Your task to perform on an android device: Open internet settings Image 0: 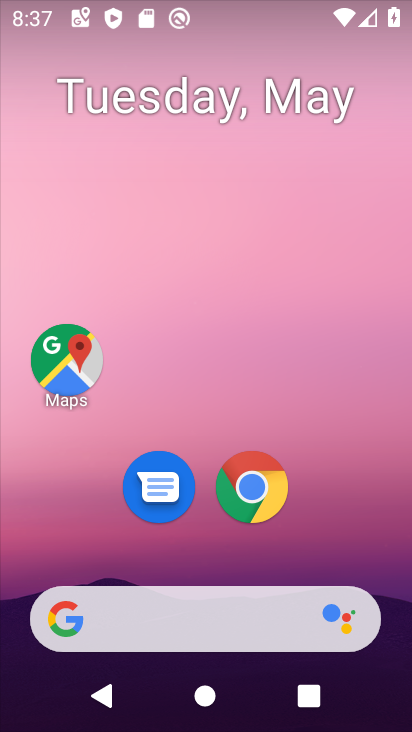
Step 0: drag from (353, 532) to (359, 127)
Your task to perform on an android device: Open internet settings Image 1: 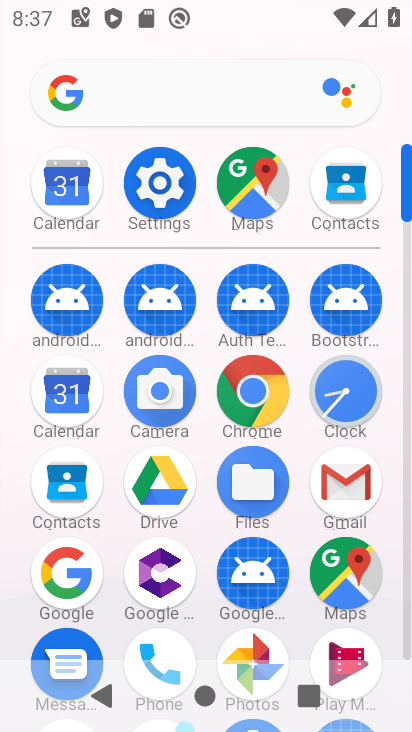
Step 1: click (175, 193)
Your task to perform on an android device: Open internet settings Image 2: 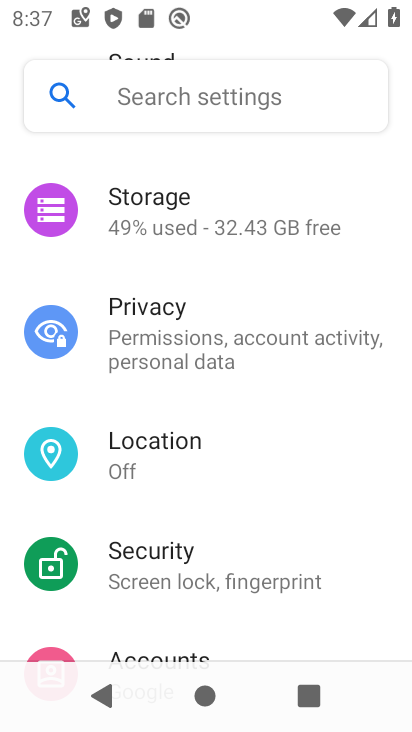
Step 2: drag from (328, 517) to (342, 399)
Your task to perform on an android device: Open internet settings Image 3: 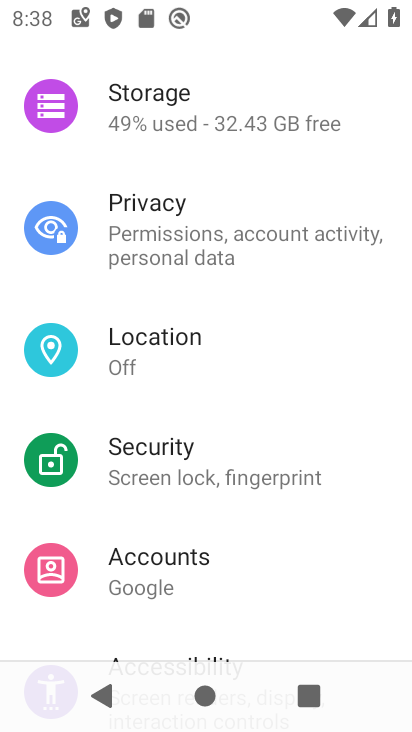
Step 3: drag from (322, 578) to (338, 435)
Your task to perform on an android device: Open internet settings Image 4: 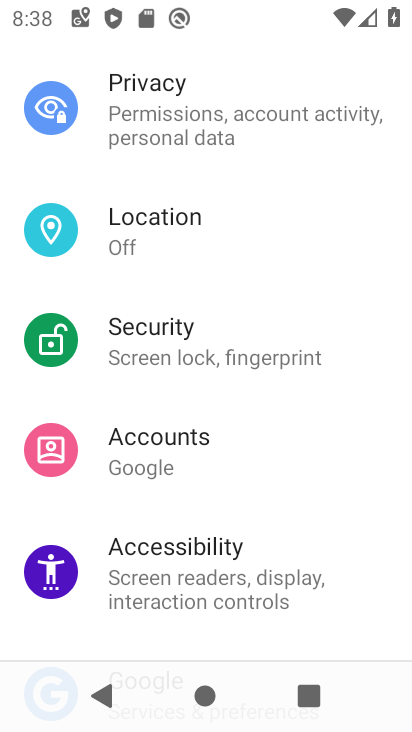
Step 4: drag from (346, 596) to (365, 479)
Your task to perform on an android device: Open internet settings Image 5: 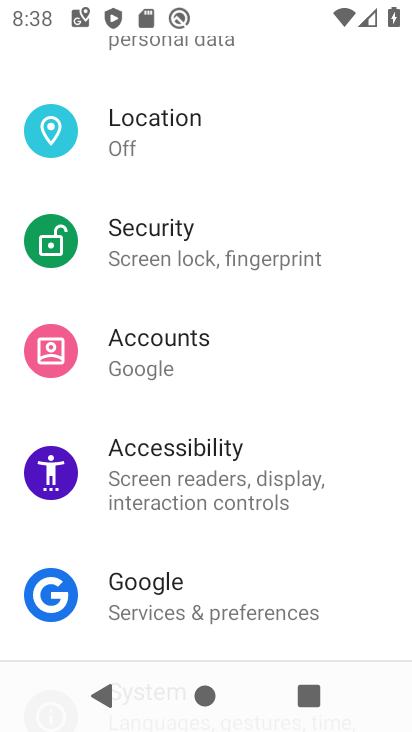
Step 5: drag from (355, 605) to (361, 478)
Your task to perform on an android device: Open internet settings Image 6: 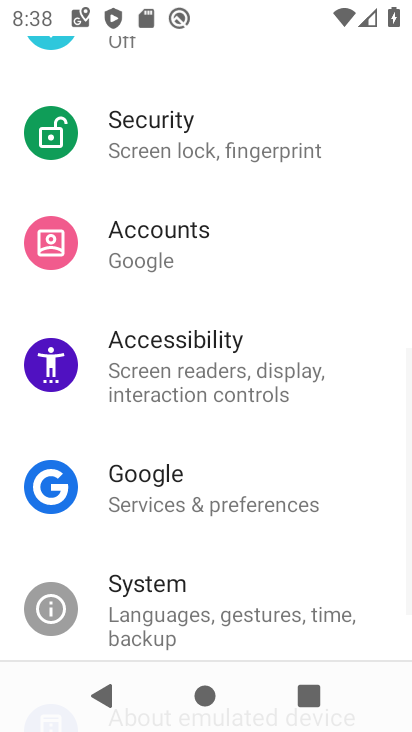
Step 6: drag from (358, 567) to (355, 463)
Your task to perform on an android device: Open internet settings Image 7: 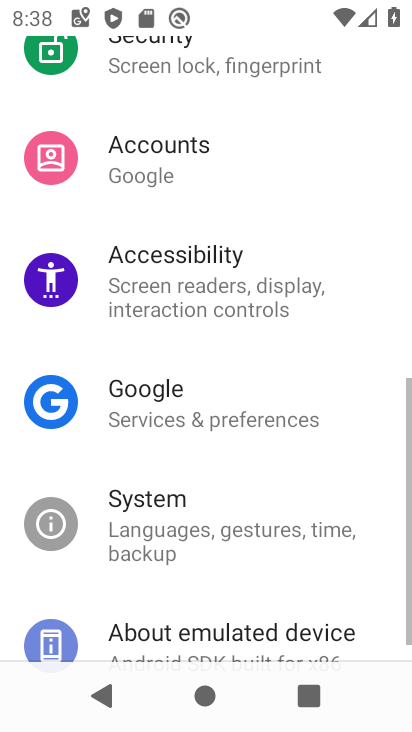
Step 7: drag from (362, 316) to (365, 451)
Your task to perform on an android device: Open internet settings Image 8: 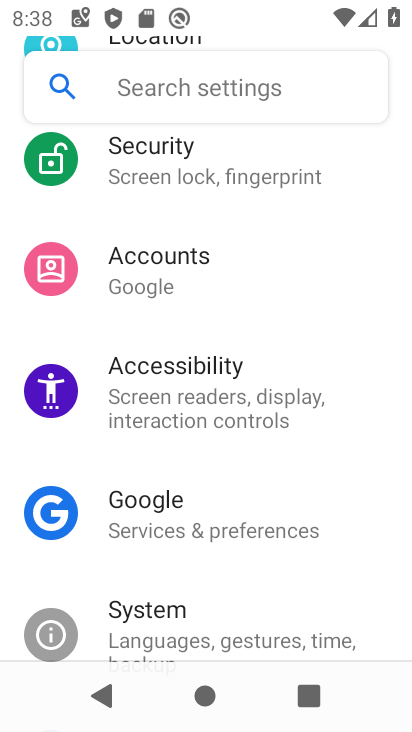
Step 8: drag from (361, 291) to (362, 442)
Your task to perform on an android device: Open internet settings Image 9: 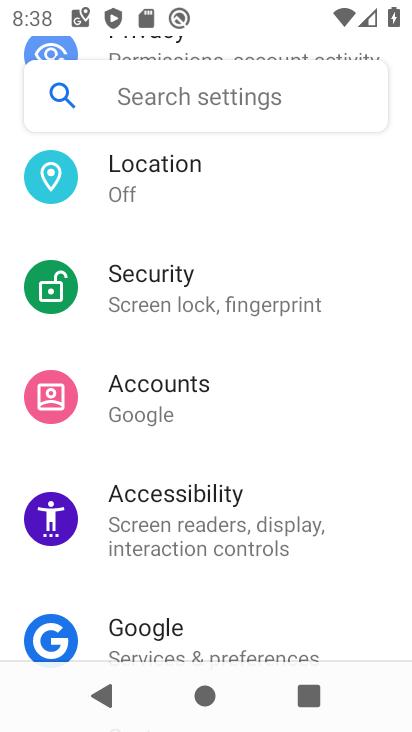
Step 9: drag from (349, 274) to (345, 376)
Your task to perform on an android device: Open internet settings Image 10: 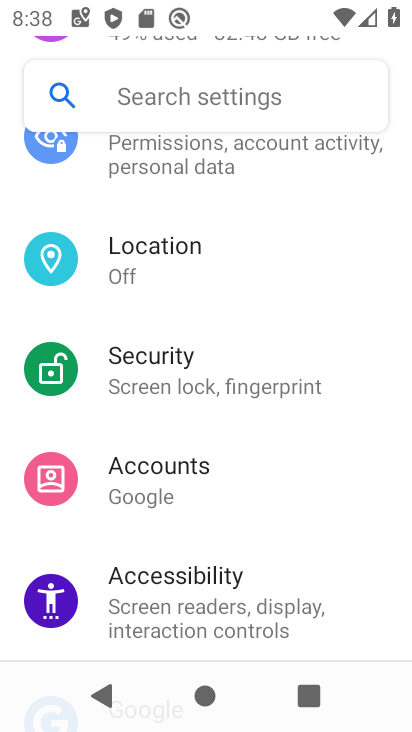
Step 10: drag from (343, 246) to (344, 355)
Your task to perform on an android device: Open internet settings Image 11: 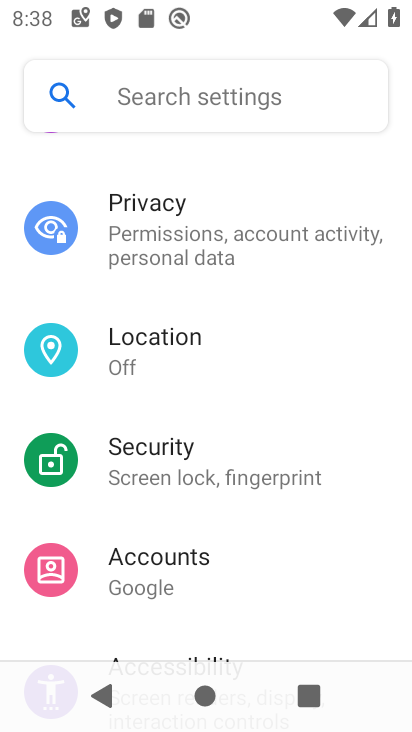
Step 11: drag from (325, 266) to (327, 394)
Your task to perform on an android device: Open internet settings Image 12: 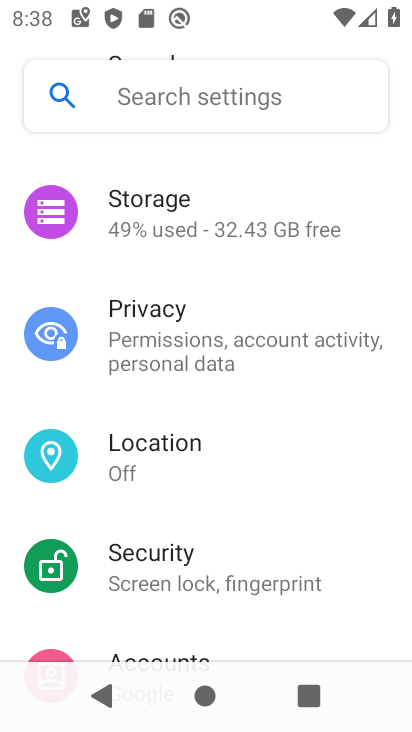
Step 12: drag from (349, 259) to (345, 400)
Your task to perform on an android device: Open internet settings Image 13: 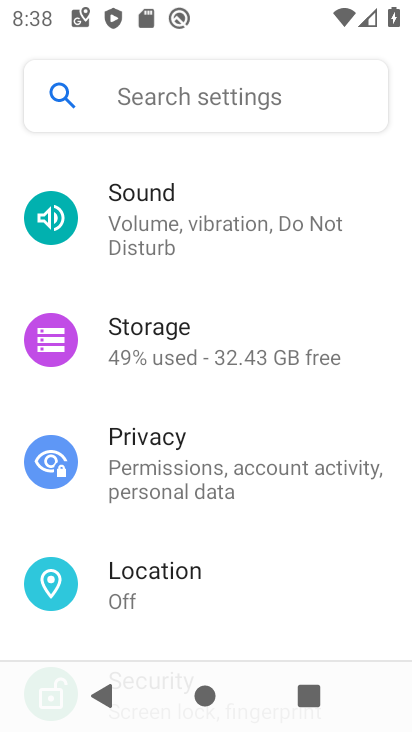
Step 13: drag from (339, 241) to (344, 373)
Your task to perform on an android device: Open internet settings Image 14: 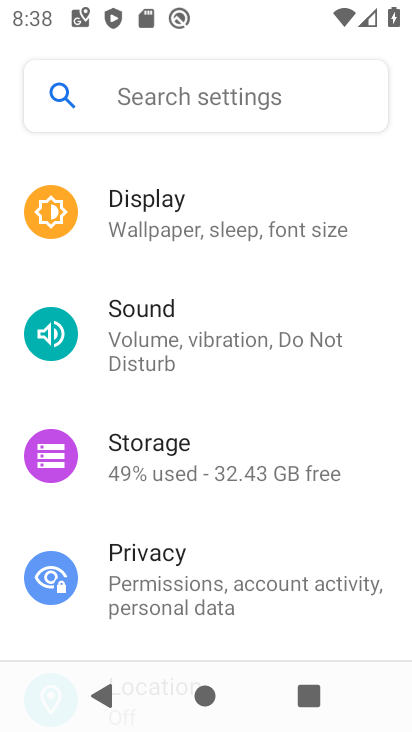
Step 14: drag from (359, 189) to (363, 323)
Your task to perform on an android device: Open internet settings Image 15: 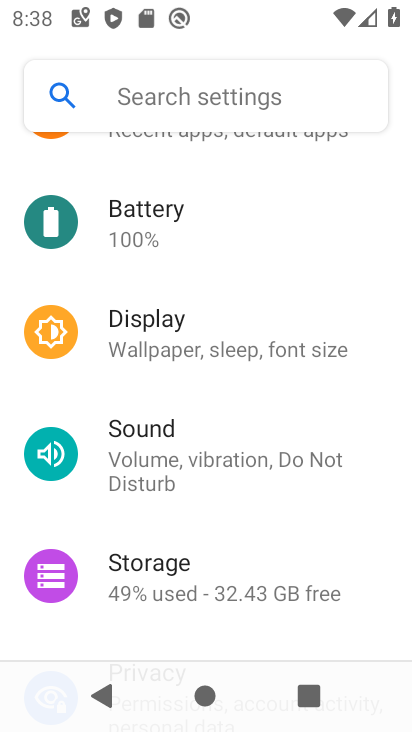
Step 15: drag from (356, 188) to (354, 355)
Your task to perform on an android device: Open internet settings Image 16: 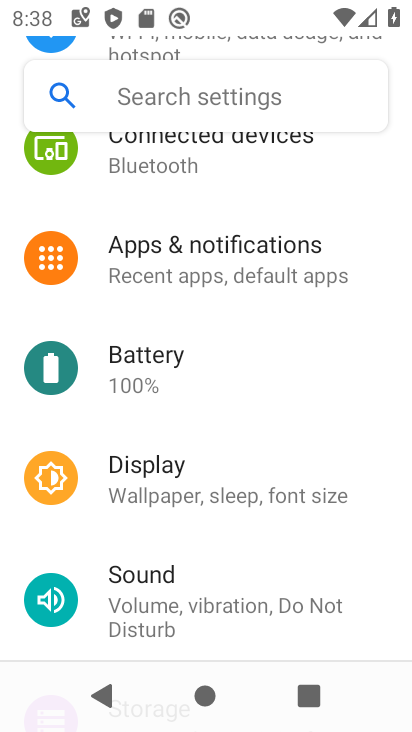
Step 16: drag from (352, 189) to (354, 350)
Your task to perform on an android device: Open internet settings Image 17: 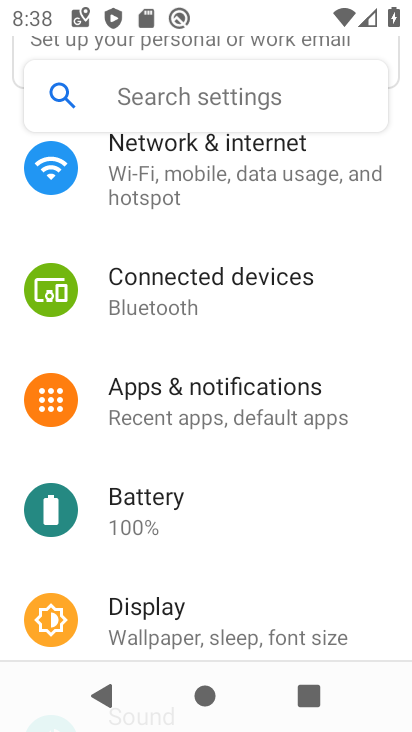
Step 17: drag from (345, 232) to (339, 360)
Your task to perform on an android device: Open internet settings Image 18: 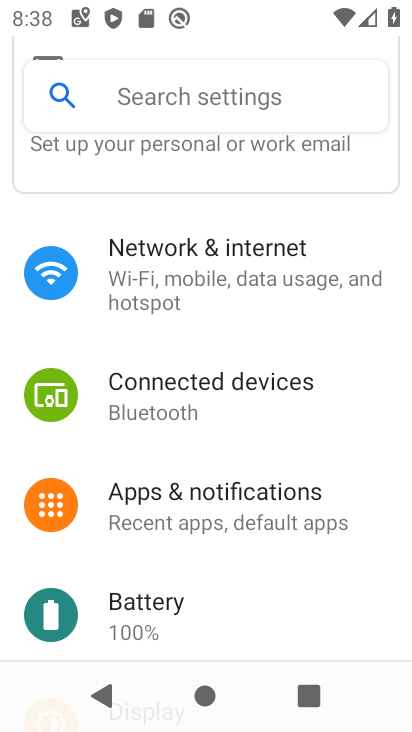
Step 18: click (251, 296)
Your task to perform on an android device: Open internet settings Image 19: 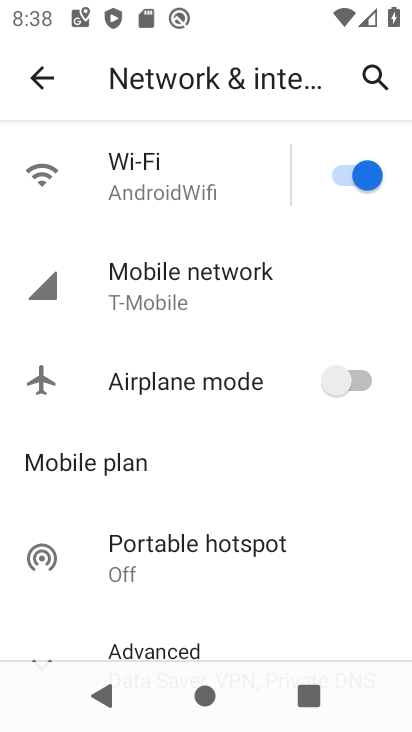
Step 19: task complete